Your task to perform on an android device: turn off notifications settings in the gmail app Image 0: 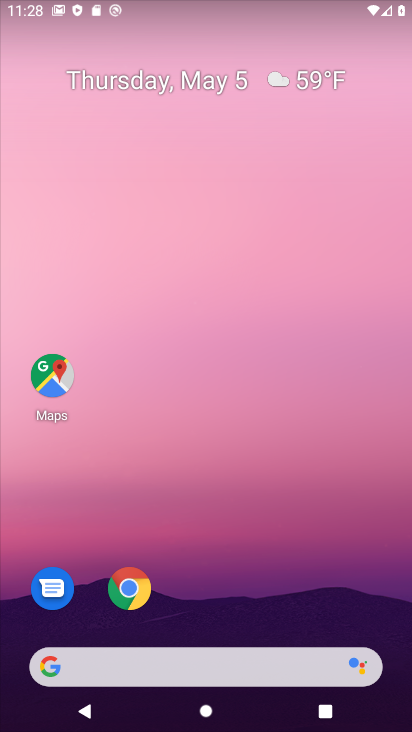
Step 0: drag from (144, 671) to (294, 168)
Your task to perform on an android device: turn off notifications settings in the gmail app Image 1: 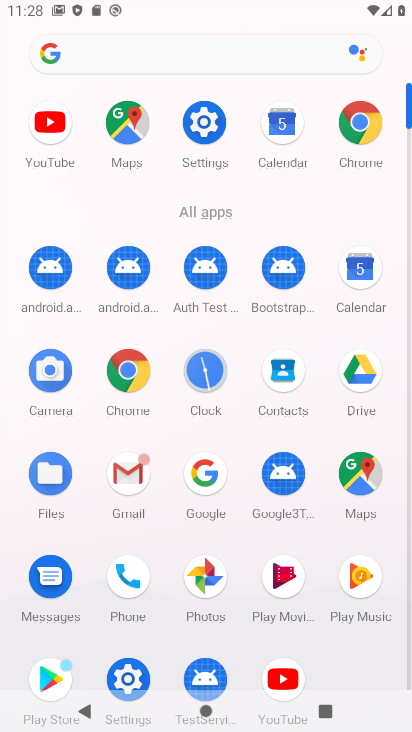
Step 1: click (127, 484)
Your task to perform on an android device: turn off notifications settings in the gmail app Image 2: 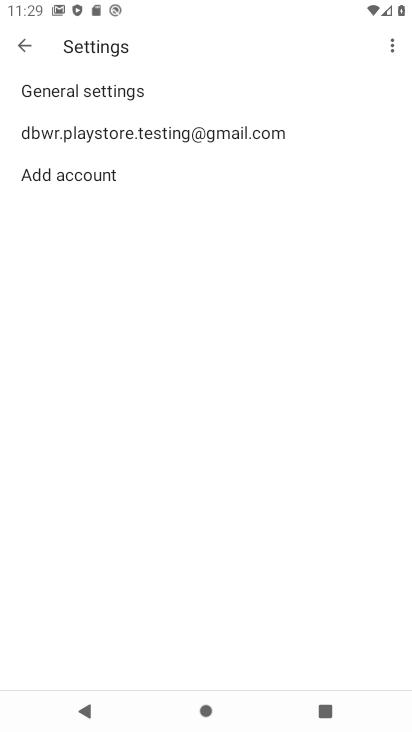
Step 2: click (189, 136)
Your task to perform on an android device: turn off notifications settings in the gmail app Image 3: 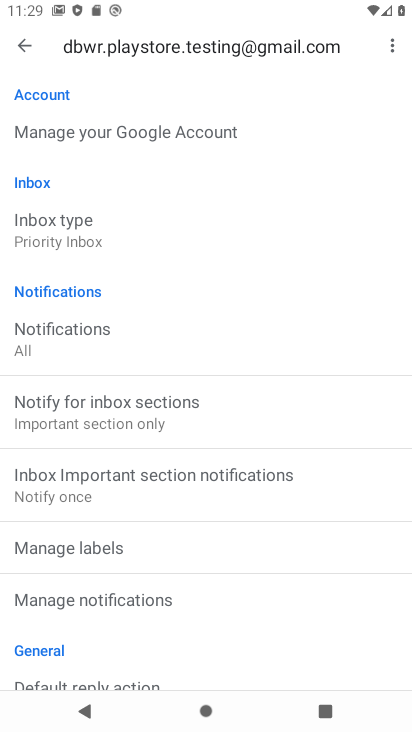
Step 3: click (83, 342)
Your task to perform on an android device: turn off notifications settings in the gmail app Image 4: 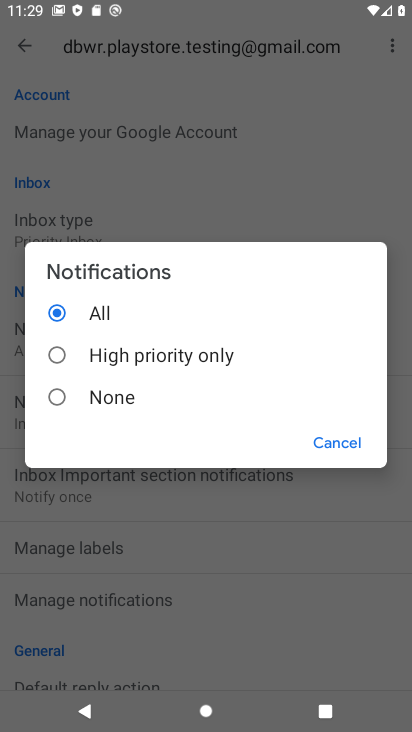
Step 4: click (58, 399)
Your task to perform on an android device: turn off notifications settings in the gmail app Image 5: 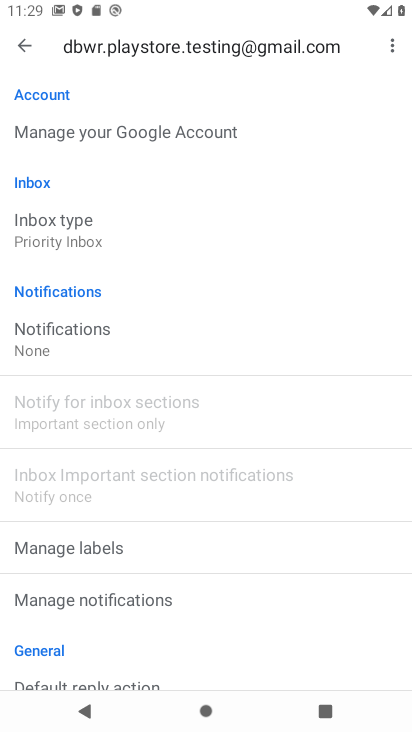
Step 5: task complete